Your task to perform on an android device: Turn off the flashlight Image 0: 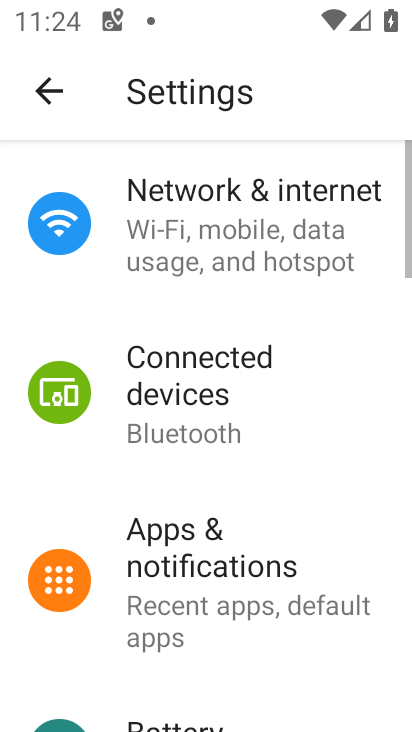
Step 0: drag from (226, 426) to (219, 658)
Your task to perform on an android device: Turn off the flashlight Image 1: 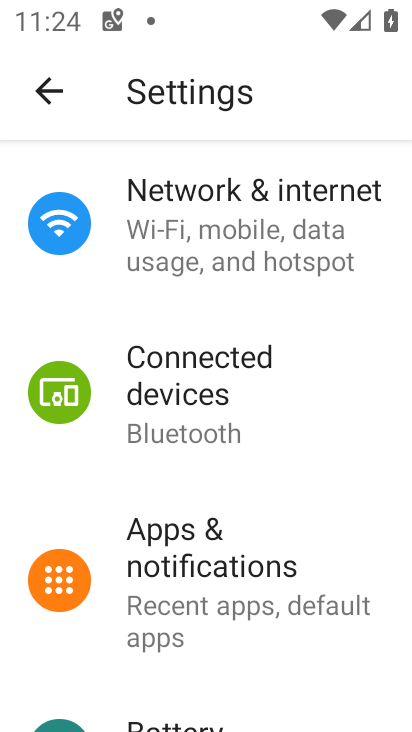
Step 1: drag from (188, 566) to (236, 610)
Your task to perform on an android device: Turn off the flashlight Image 2: 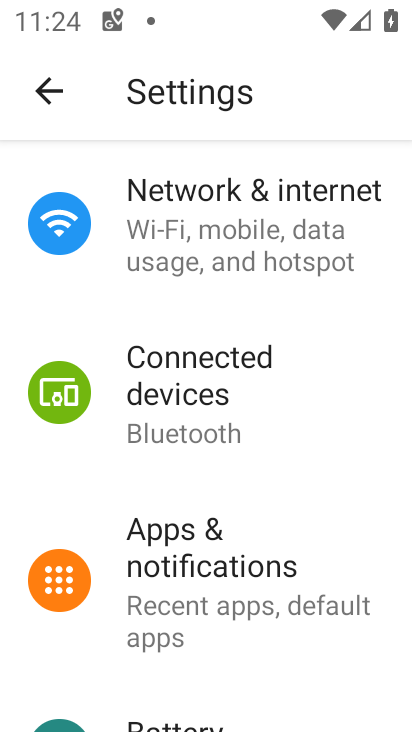
Step 2: drag from (236, 610) to (183, 726)
Your task to perform on an android device: Turn off the flashlight Image 3: 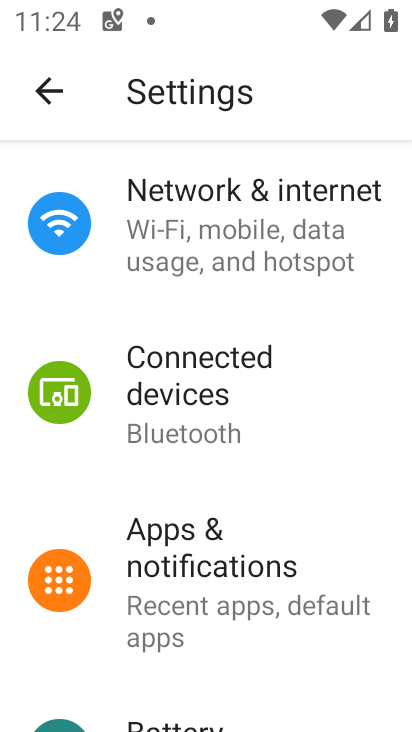
Step 3: press home button
Your task to perform on an android device: Turn off the flashlight Image 4: 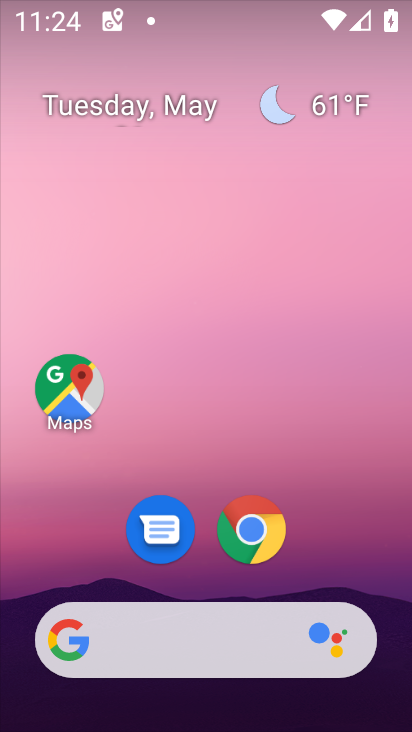
Step 4: drag from (321, 575) to (264, 256)
Your task to perform on an android device: Turn off the flashlight Image 5: 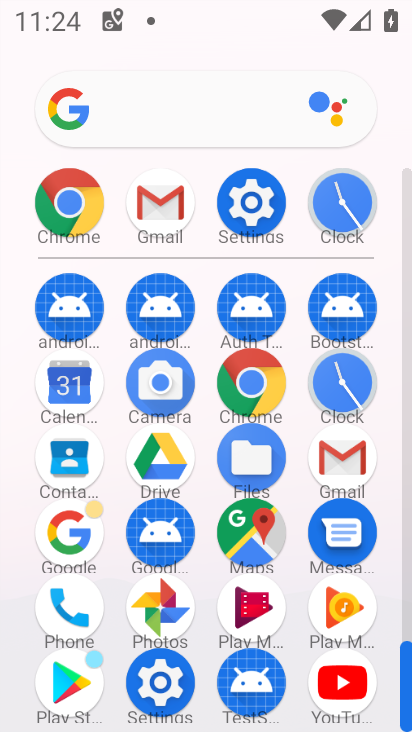
Step 5: click (246, 202)
Your task to perform on an android device: Turn off the flashlight Image 6: 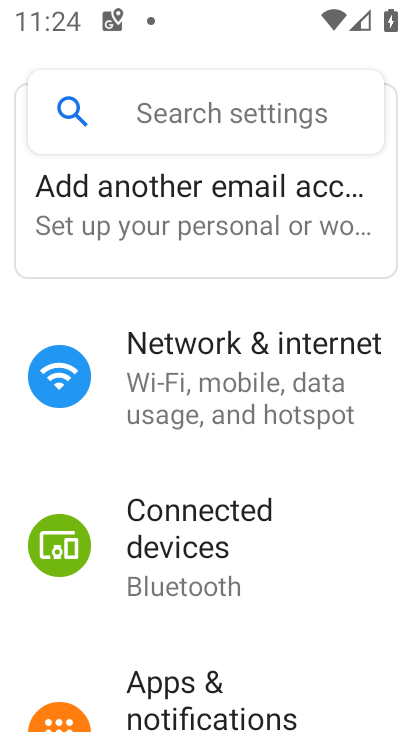
Step 6: click (216, 125)
Your task to perform on an android device: Turn off the flashlight Image 7: 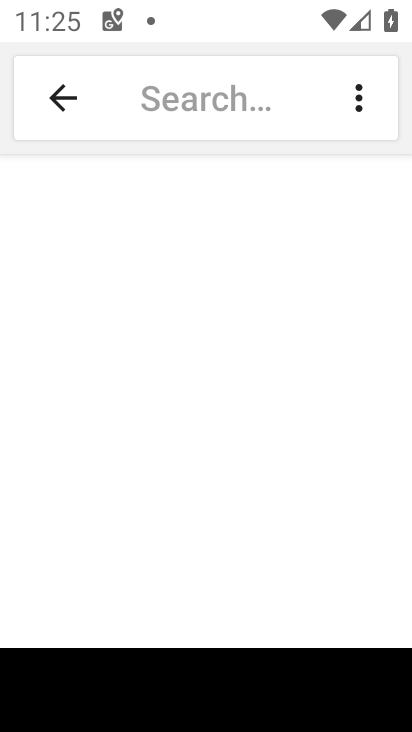
Step 7: type "flashlight"
Your task to perform on an android device: Turn off the flashlight Image 8: 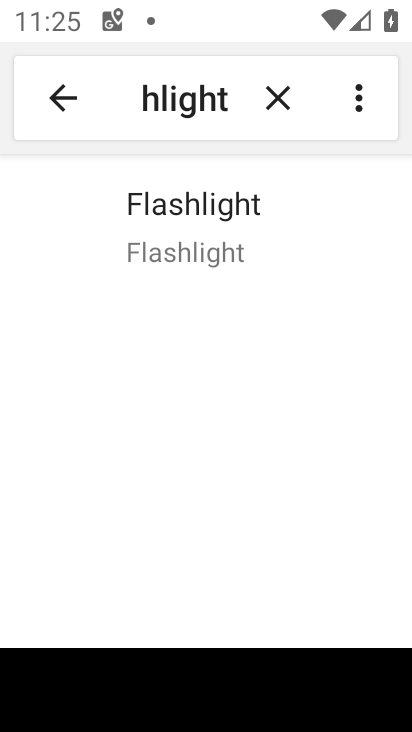
Step 8: click (164, 248)
Your task to perform on an android device: Turn off the flashlight Image 9: 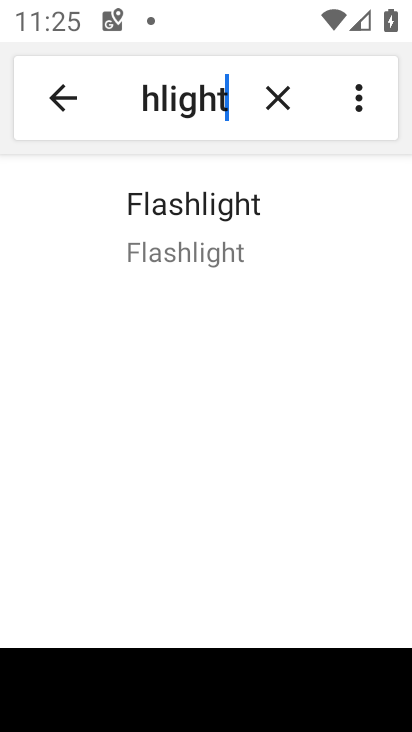
Step 9: click (164, 248)
Your task to perform on an android device: Turn off the flashlight Image 10: 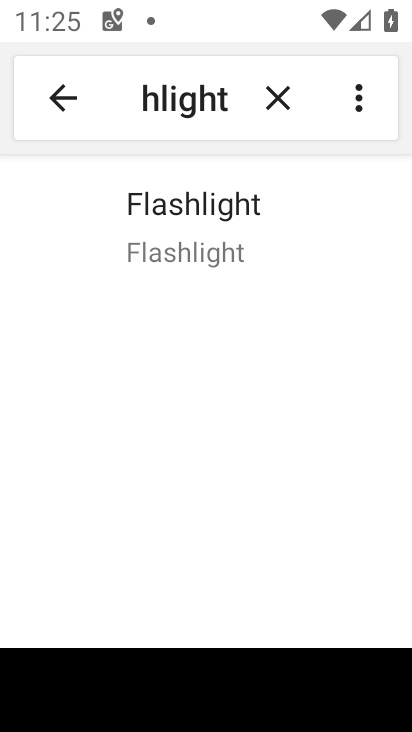
Step 10: click (164, 248)
Your task to perform on an android device: Turn off the flashlight Image 11: 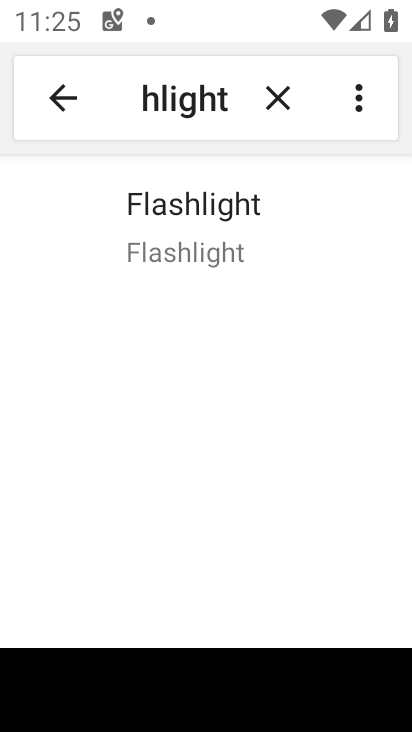
Step 11: task complete